Your task to perform on an android device: turn vacation reply on in the gmail app Image 0: 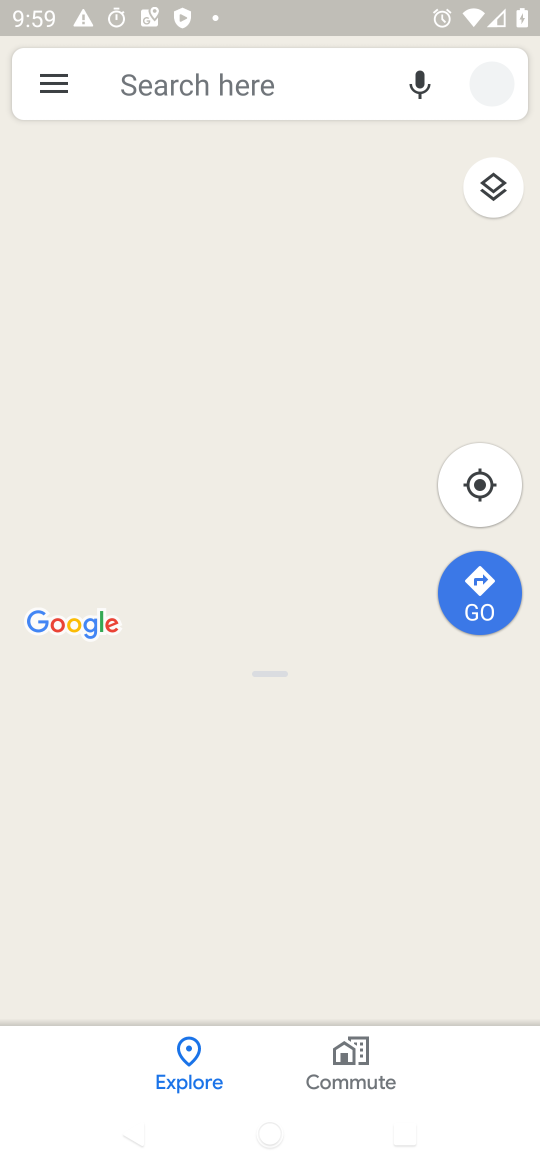
Step 0: press home button
Your task to perform on an android device: turn vacation reply on in the gmail app Image 1: 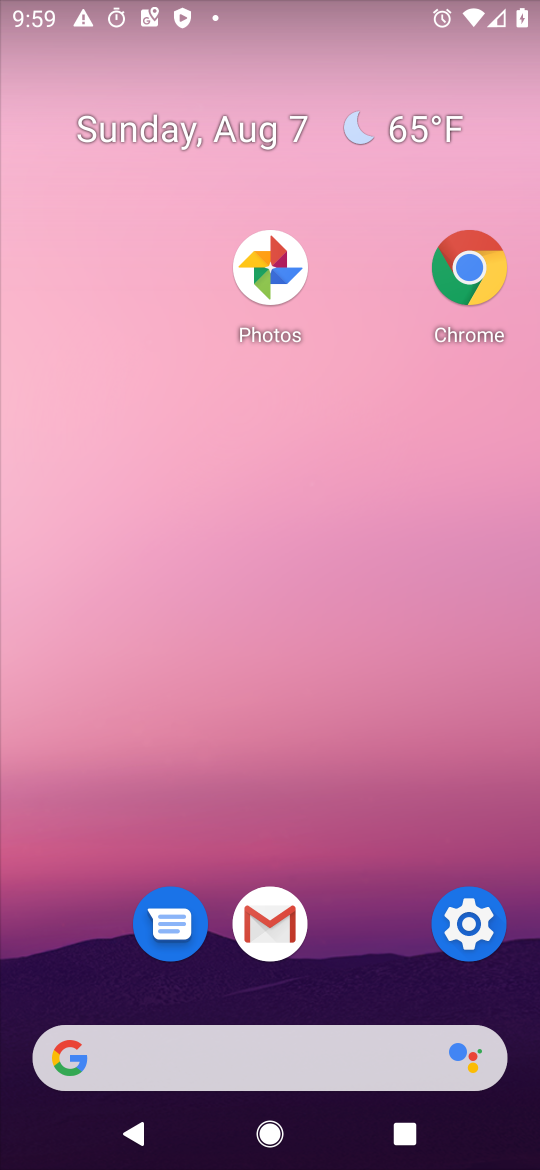
Step 1: drag from (386, 1035) to (329, 463)
Your task to perform on an android device: turn vacation reply on in the gmail app Image 2: 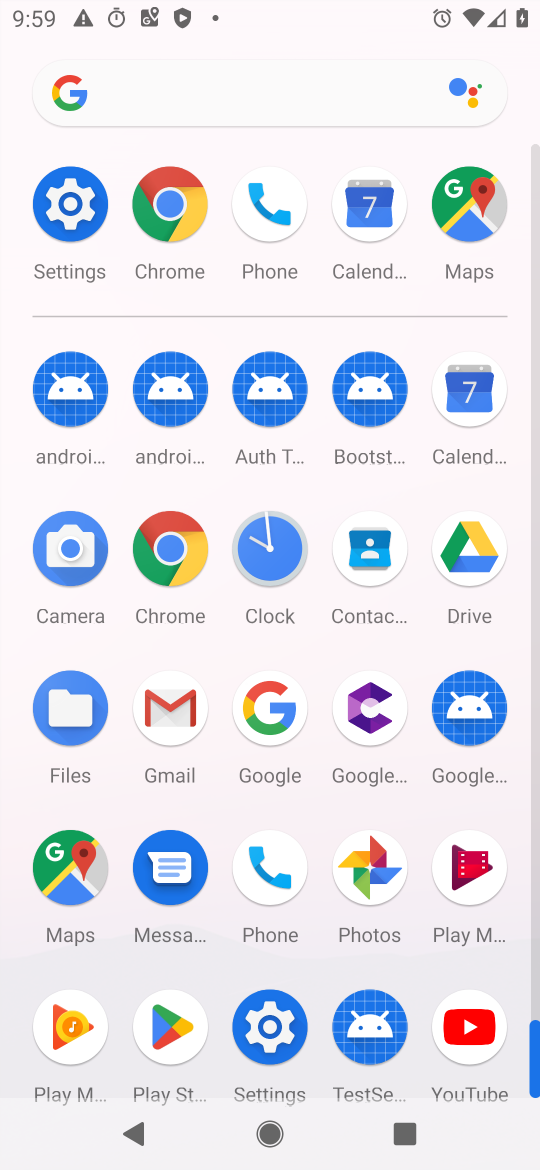
Step 2: click (168, 724)
Your task to perform on an android device: turn vacation reply on in the gmail app Image 3: 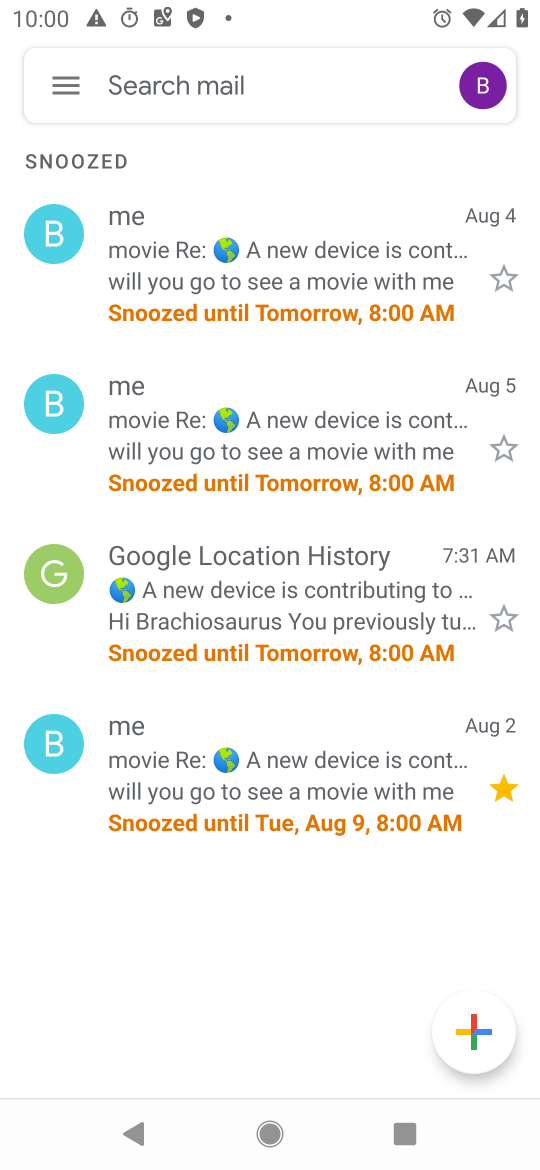
Step 3: click (68, 94)
Your task to perform on an android device: turn vacation reply on in the gmail app Image 4: 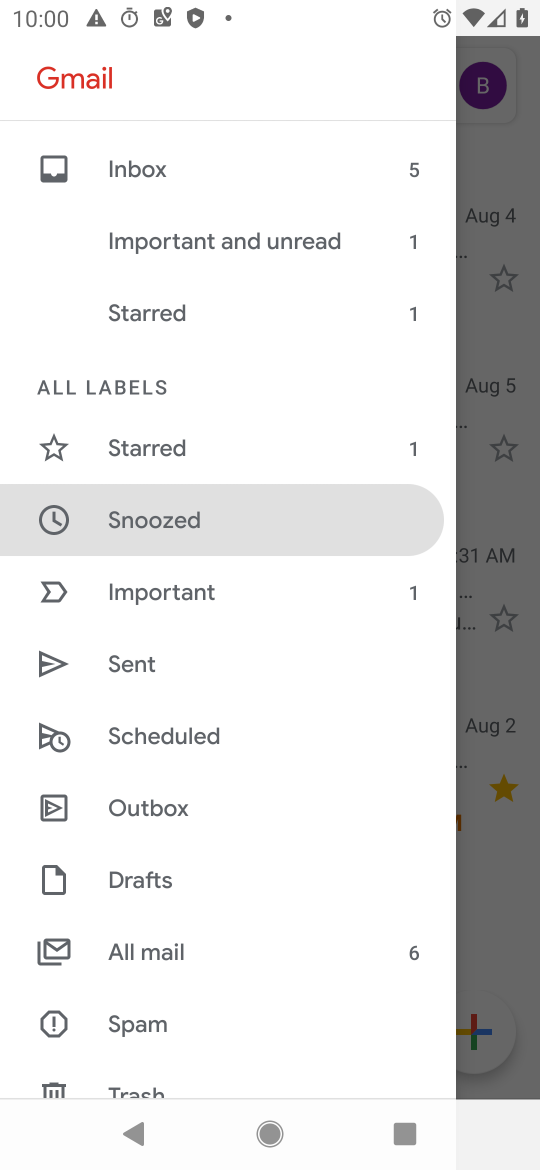
Step 4: drag from (232, 952) to (289, 676)
Your task to perform on an android device: turn vacation reply on in the gmail app Image 5: 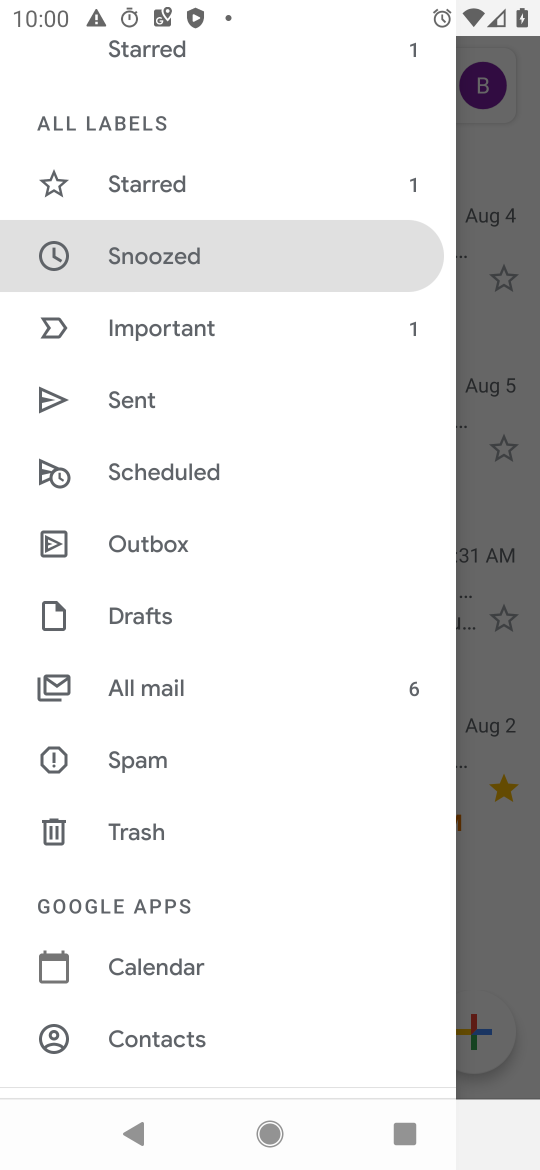
Step 5: drag from (165, 1015) to (166, 828)
Your task to perform on an android device: turn vacation reply on in the gmail app Image 6: 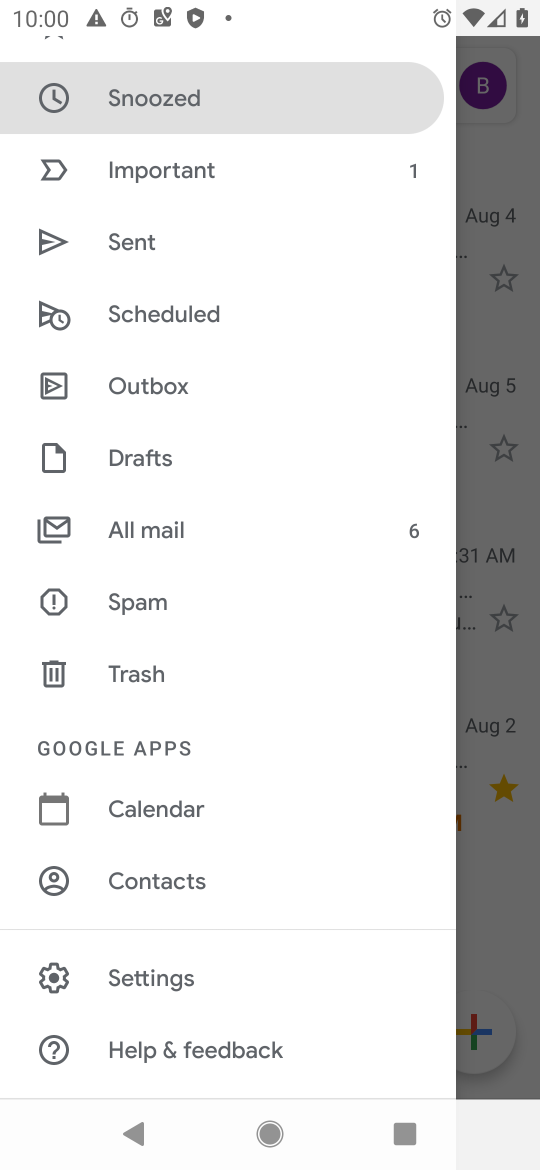
Step 6: click (131, 975)
Your task to perform on an android device: turn vacation reply on in the gmail app Image 7: 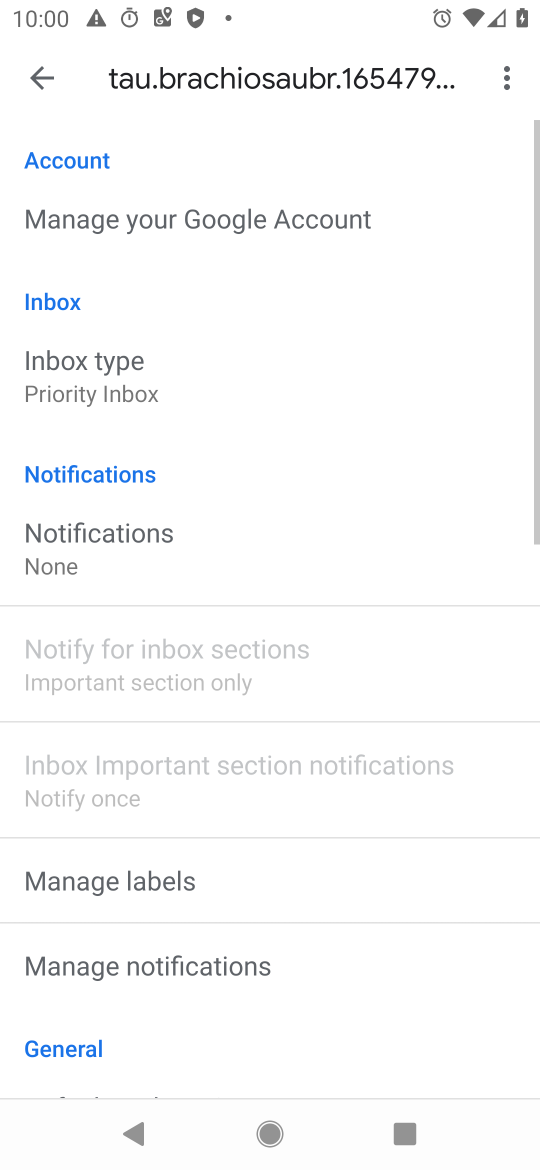
Step 7: drag from (213, 1040) to (309, 617)
Your task to perform on an android device: turn vacation reply on in the gmail app Image 8: 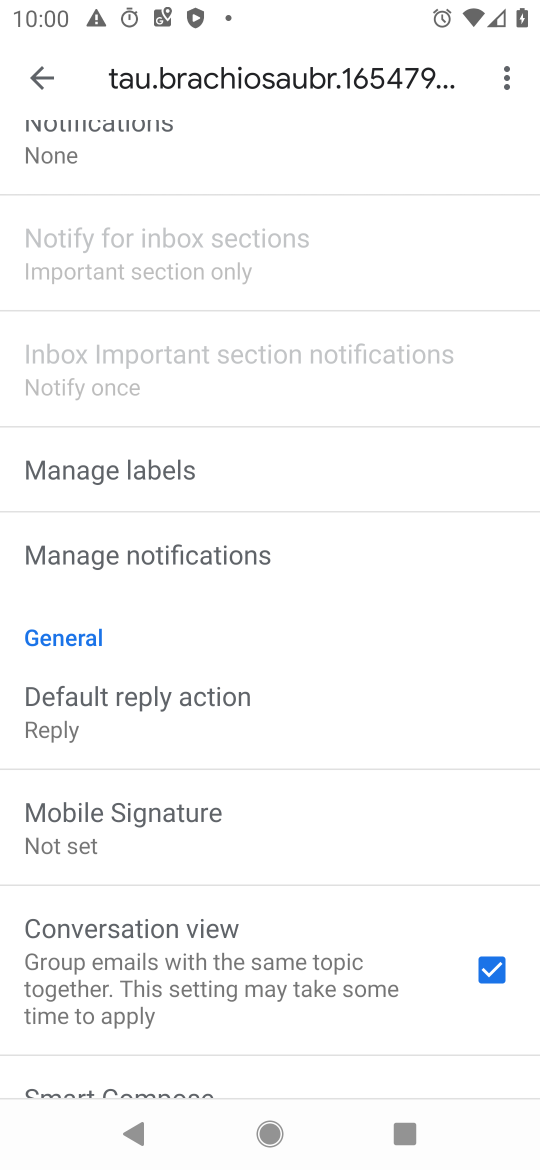
Step 8: drag from (319, 988) to (373, 633)
Your task to perform on an android device: turn vacation reply on in the gmail app Image 9: 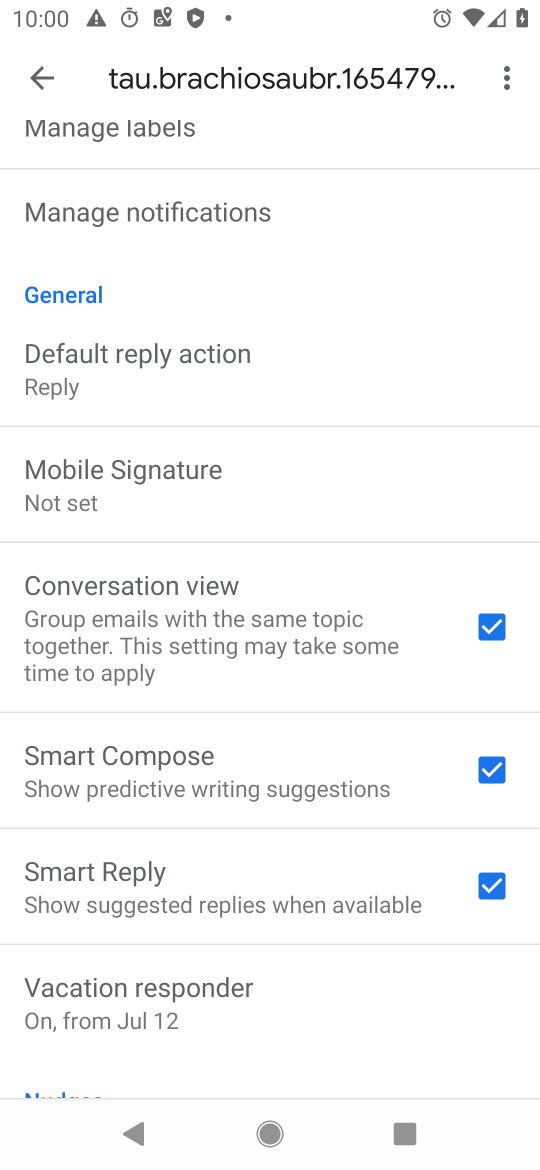
Step 9: click (376, 981)
Your task to perform on an android device: turn vacation reply on in the gmail app Image 10: 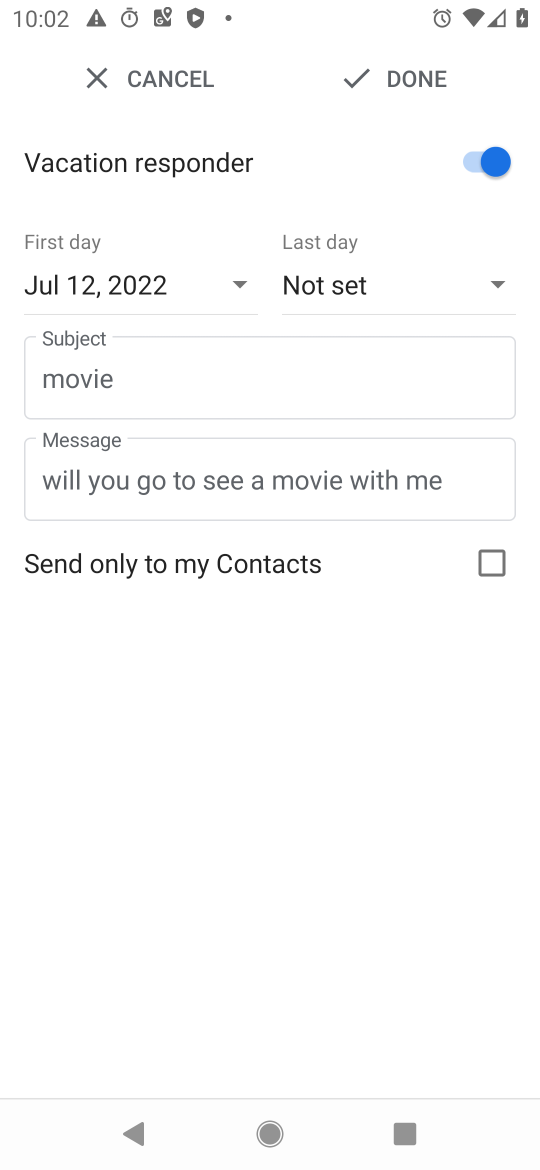
Step 10: task complete